Your task to perform on an android device: What's the weather going to be this weekend? Image 0: 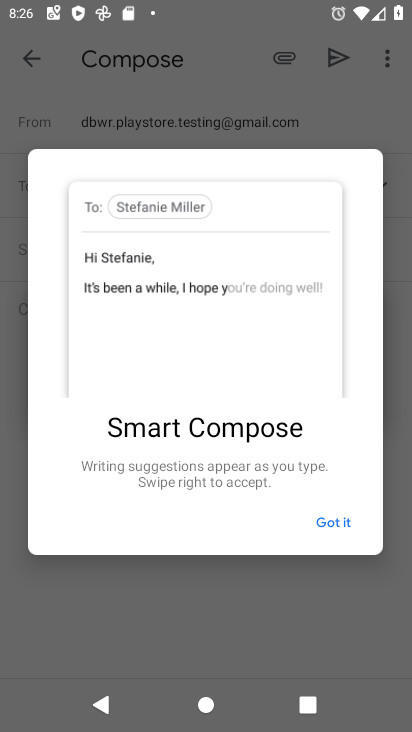
Step 0: press home button
Your task to perform on an android device: What's the weather going to be this weekend? Image 1: 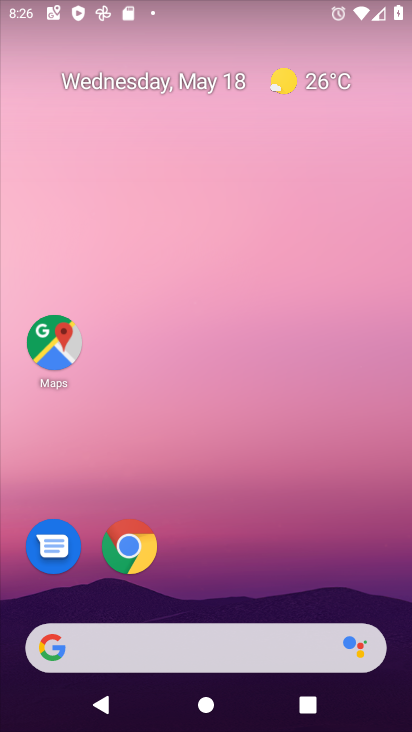
Step 1: drag from (392, 574) to (360, 86)
Your task to perform on an android device: What's the weather going to be this weekend? Image 2: 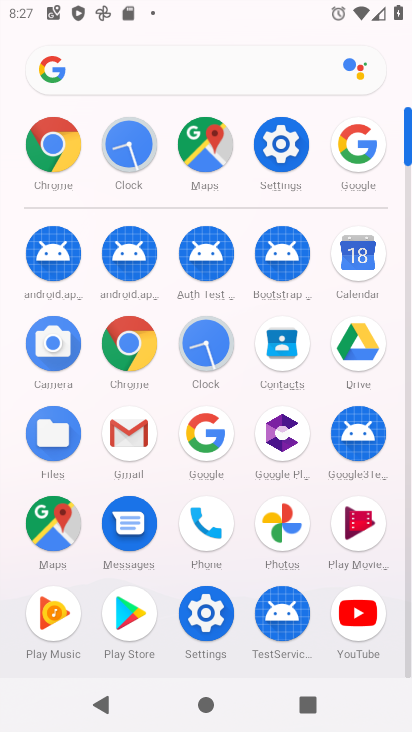
Step 2: click (215, 440)
Your task to perform on an android device: What's the weather going to be this weekend? Image 3: 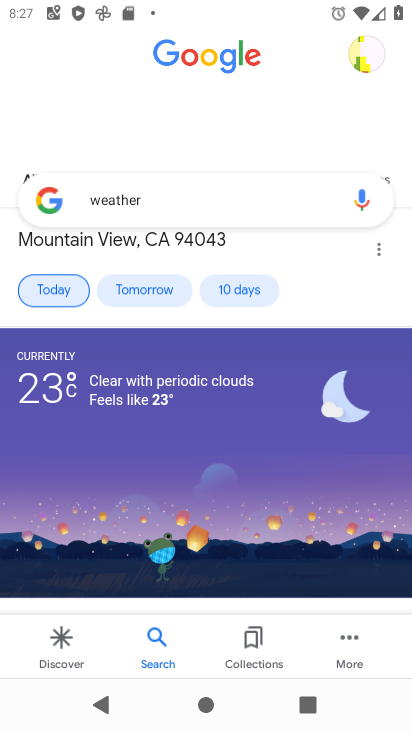
Step 3: press back button
Your task to perform on an android device: What's the weather going to be this weekend? Image 4: 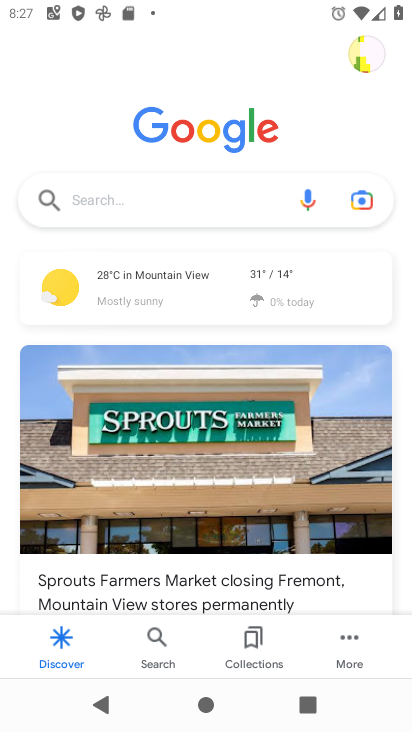
Step 4: click (169, 189)
Your task to perform on an android device: What's the weather going to be this weekend? Image 5: 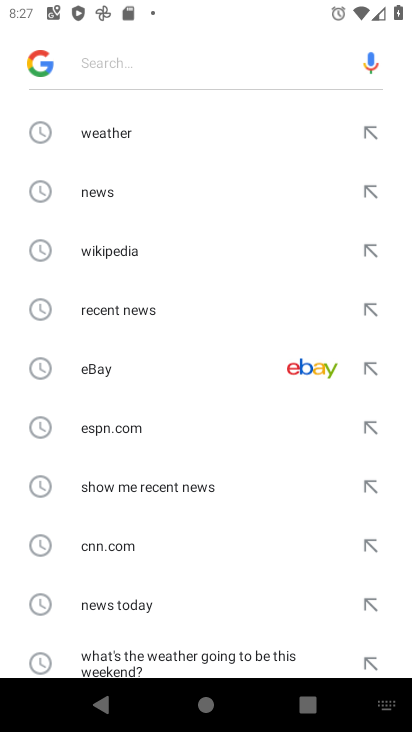
Step 5: drag from (149, 544) to (216, 143)
Your task to perform on an android device: What's the weather going to be this weekend? Image 6: 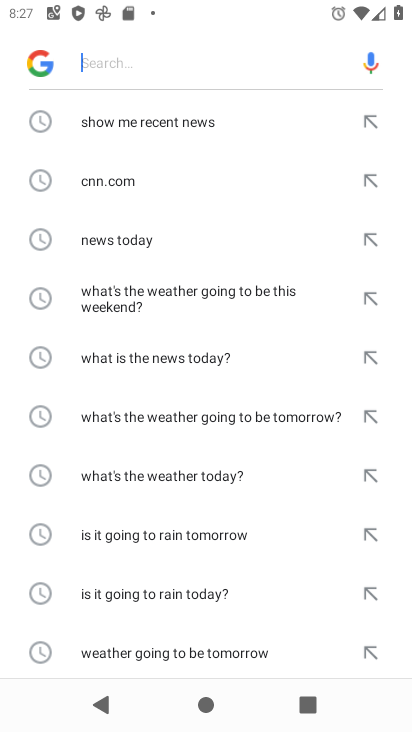
Step 6: drag from (150, 542) to (214, 214)
Your task to perform on an android device: What's the weather going to be this weekend? Image 7: 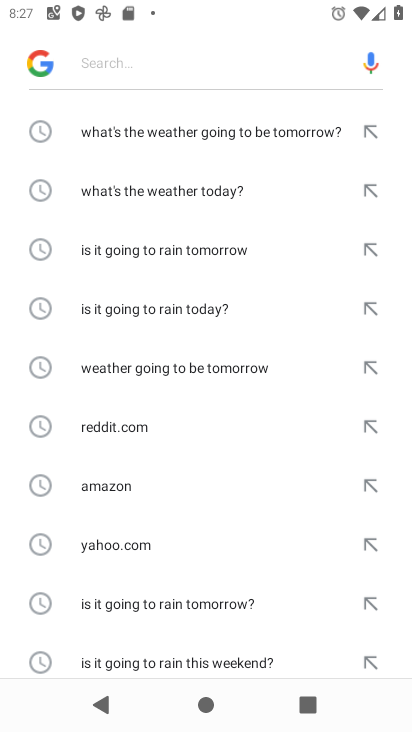
Step 7: drag from (199, 605) to (218, 306)
Your task to perform on an android device: What's the weather going to be this weekend? Image 8: 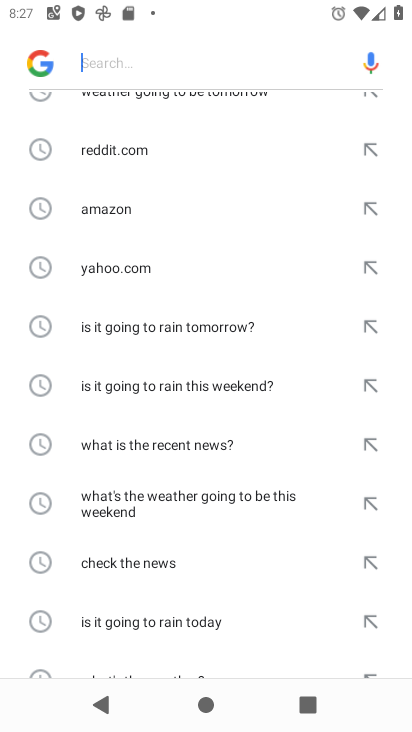
Step 8: click (204, 508)
Your task to perform on an android device: What's the weather going to be this weekend? Image 9: 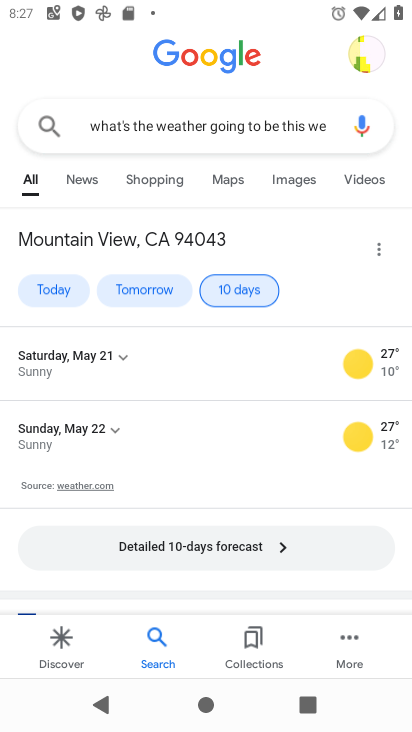
Step 9: task complete